Your task to perform on an android device: Open Youtube and go to "Your channel" Image 0: 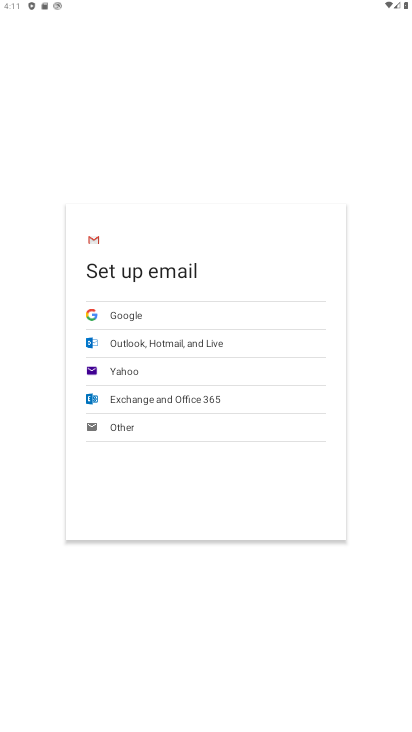
Step 0: press home button
Your task to perform on an android device: Open Youtube and go to "Your channel" Image 1: 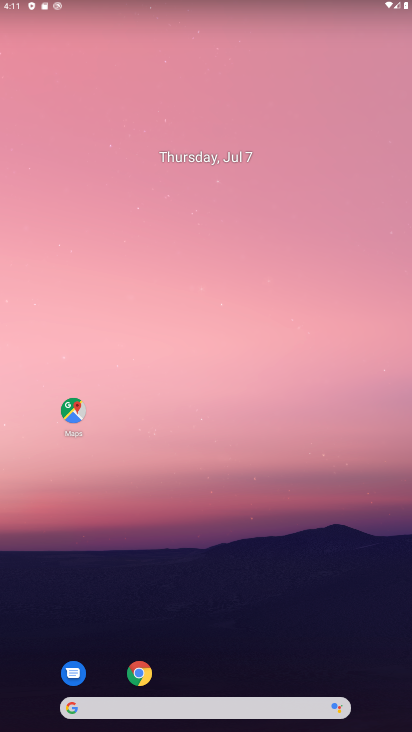
Step 1: drag from (272, 662) to (332, 260)
Your task to perform on an android device: Open Youtube and go to "Your channel" Image 2: 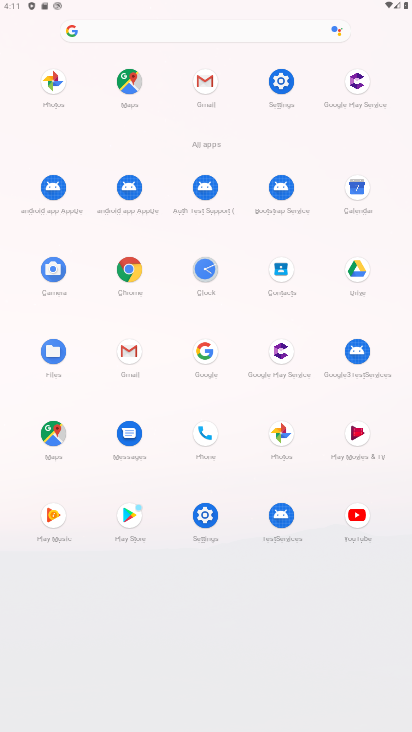
Step 2: click (358, 503)
Your task to perform on an android device: Open Youtube and go to "Your channel" Image 3: 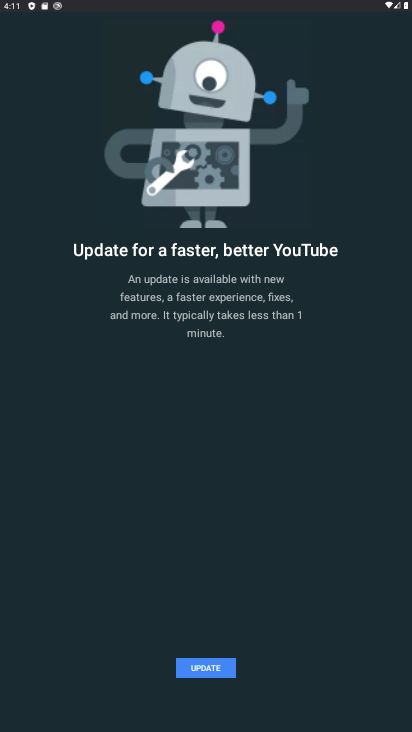
Step 3: click (358, 522)
Your task to perform on an android device: Open Youtube and go to "Your channel" Image 4: 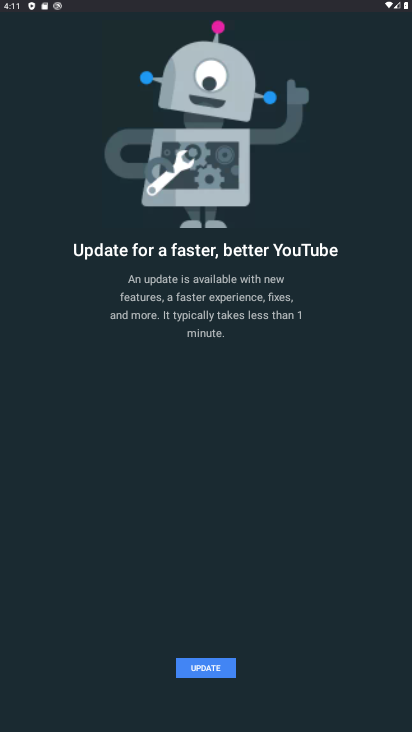
Step 4: click (220, 672)
Your task to perform on an android device: Open Youtube and go to "Your channel" Image 5: 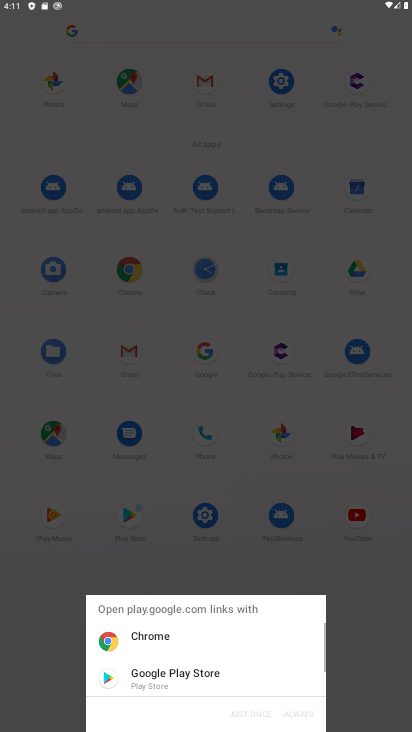
Step 5: click (206, 669)
Your task to perform on an android device: Open Youtube and go to "Your channel" Image 6: 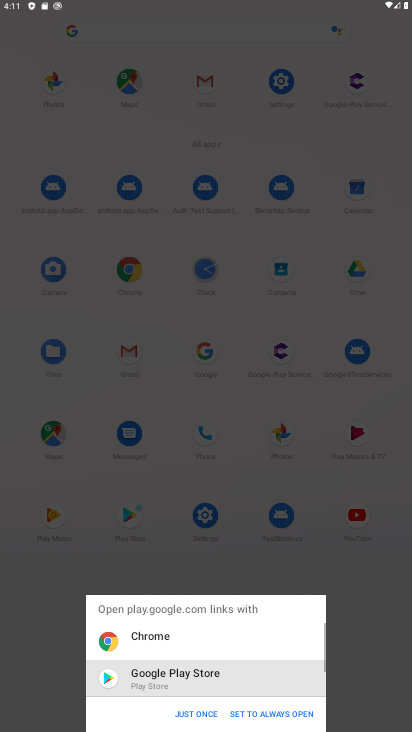
Step 6: click (205, 669)
Your task to perform on an android device: Open Youtube and go to "Your channel" Image 7: 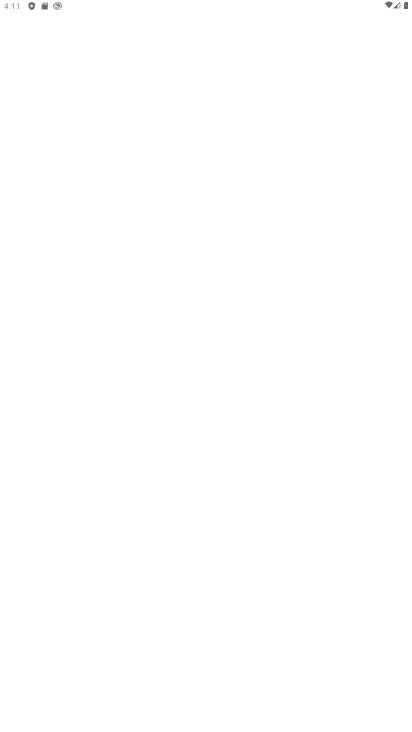
Step 7: click (205, 669)
Your task to perform on an android device: Open Youtube and go to "Your channel" Image 8: 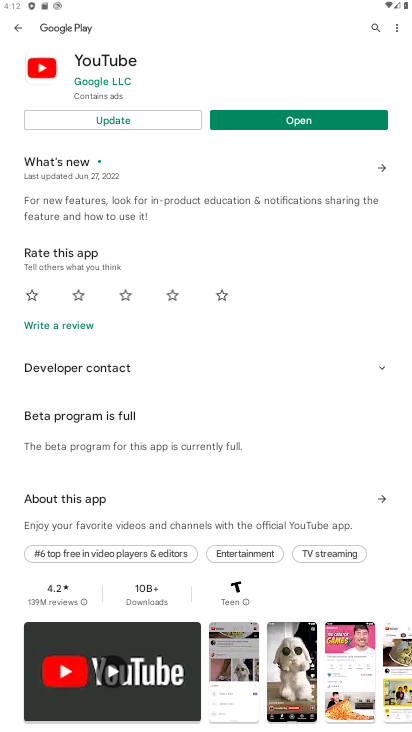
Step 8: click (98, 122)
Your task to perform on an android device: Open Youtube and go to "Your channel" Image 9: 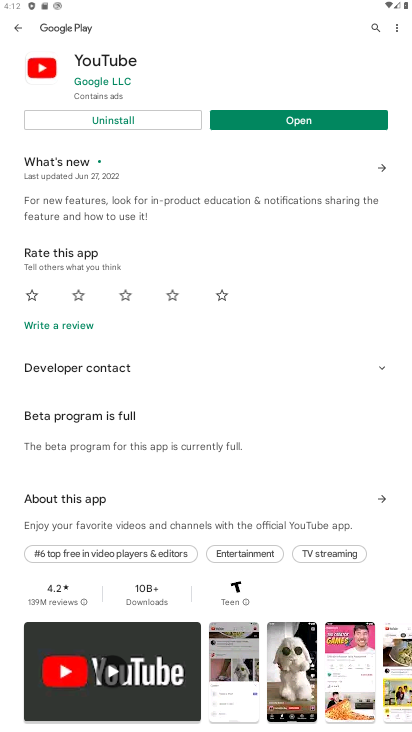
Step 9: click (325, 120)
Your task to perform on an android device: Open Youtube and go to "Your channel" Image 10: 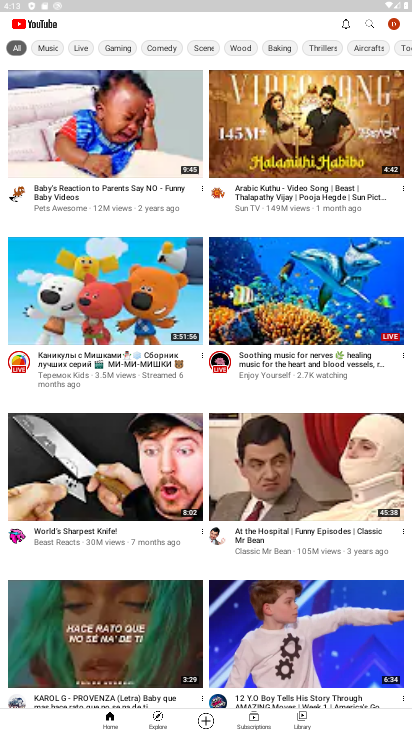
Step 10: click (397, 21)
Your task to perform on an android device: Open Youtube and go to "Your channel" Image 11: 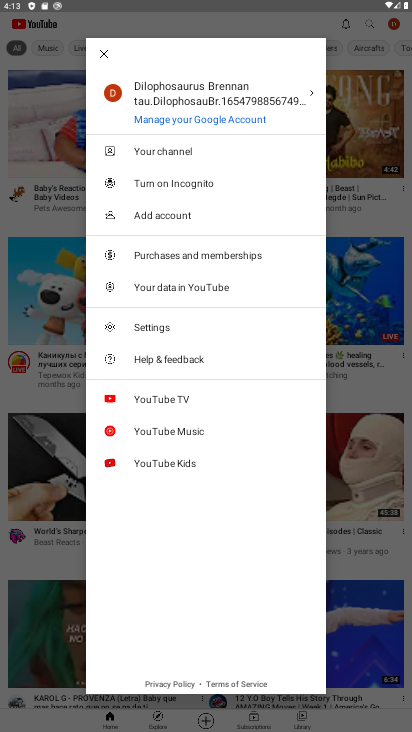
Step 11: click (190, 155)
Your task to perform on an android device: Open Youtube and go to "Your channel" Image 12: 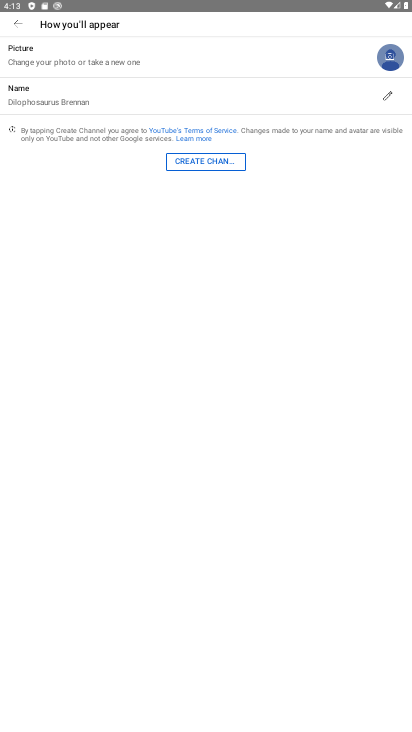
Step 12: task complete